Your task to perform on an android device: choose inbox layout in the gmail app Image 0: 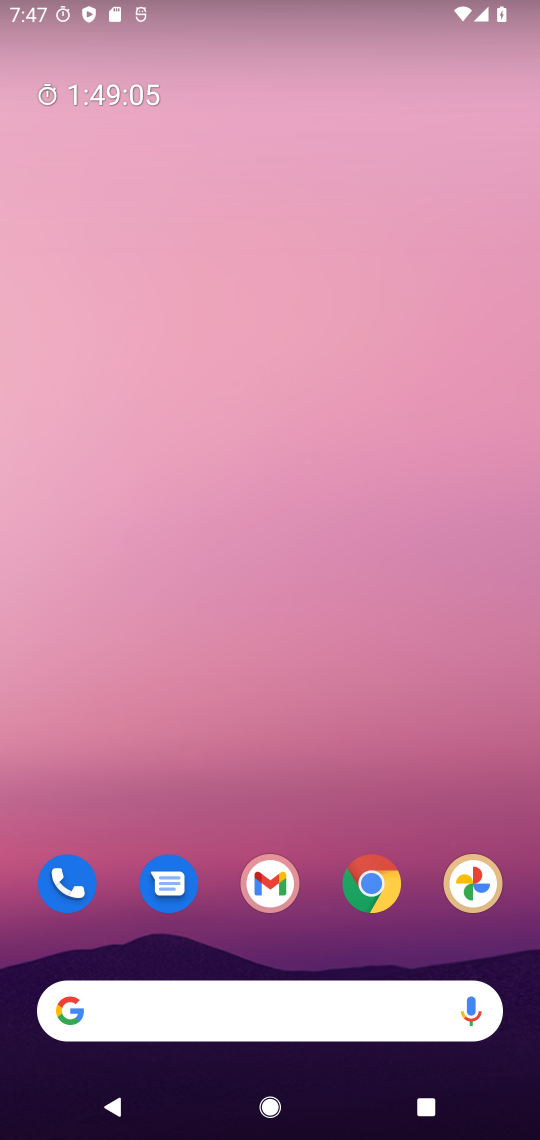
Step 0: click (261, 867)
Your task to perform on an android device: choose inbox layout in the gmail app Image 1: 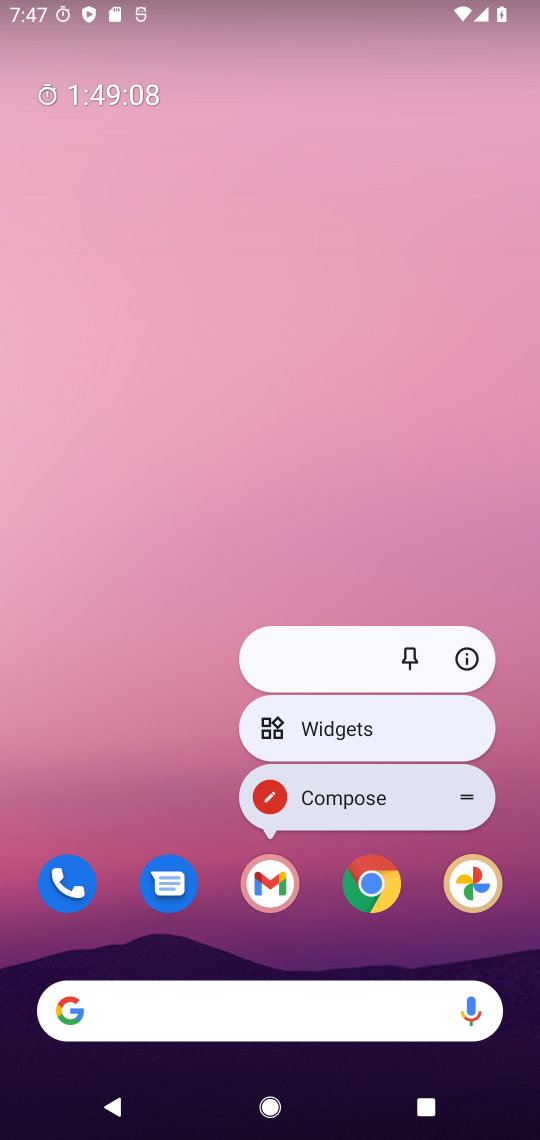
Step 1: click (261, 867)
Your task to perform on an android device: choose inbox layout in the gmail app Image 2: 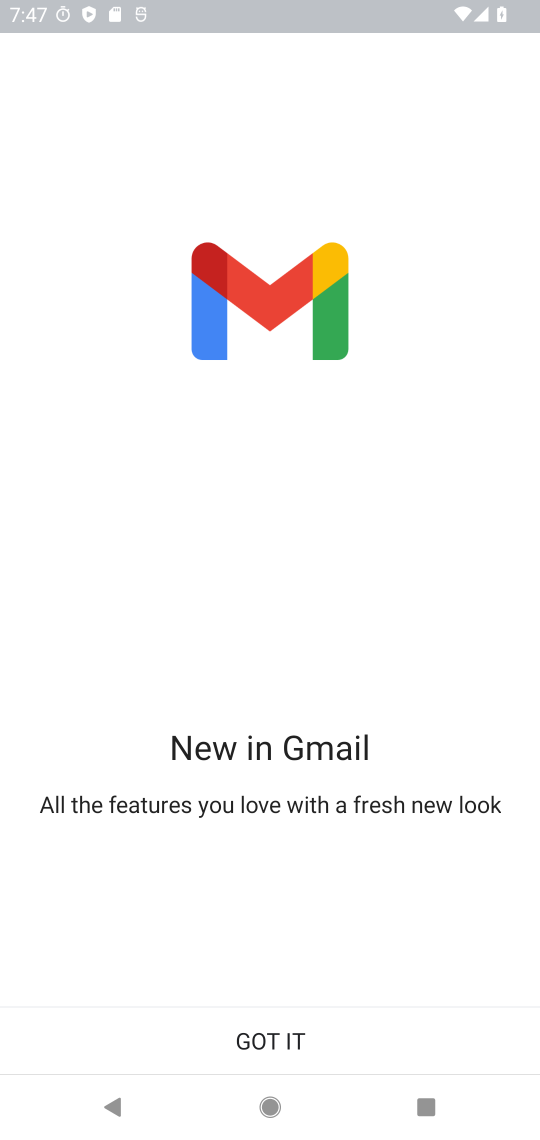
Step 2: click (297, 1031)
Your task to perform on an android device: choose inbox layout in the gmail app Image 3: 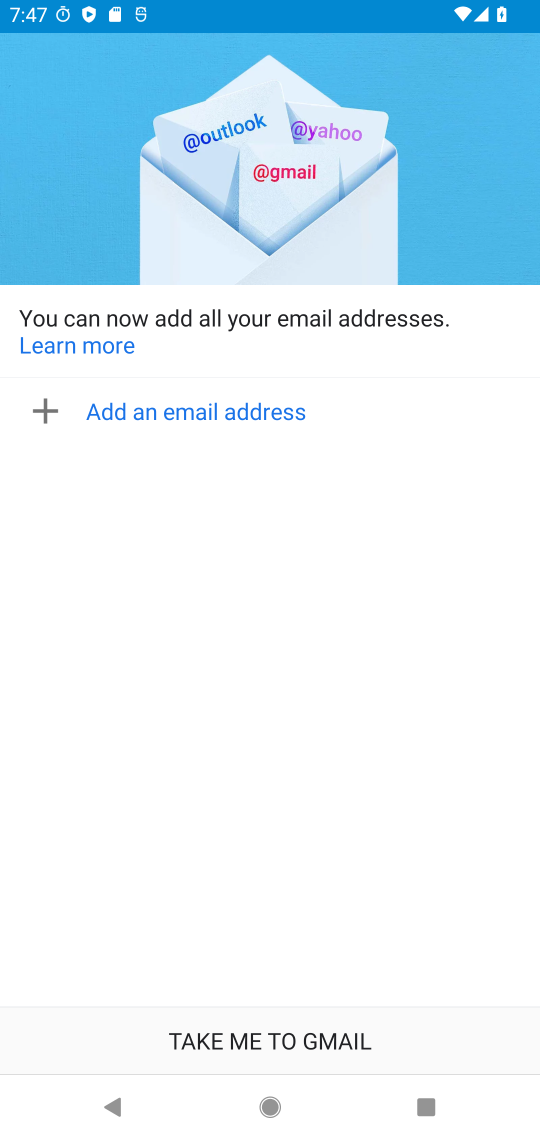
Step 3: task complete